Your task to perform on an android device: open app "Skype" (install if not already installed) Image 0: 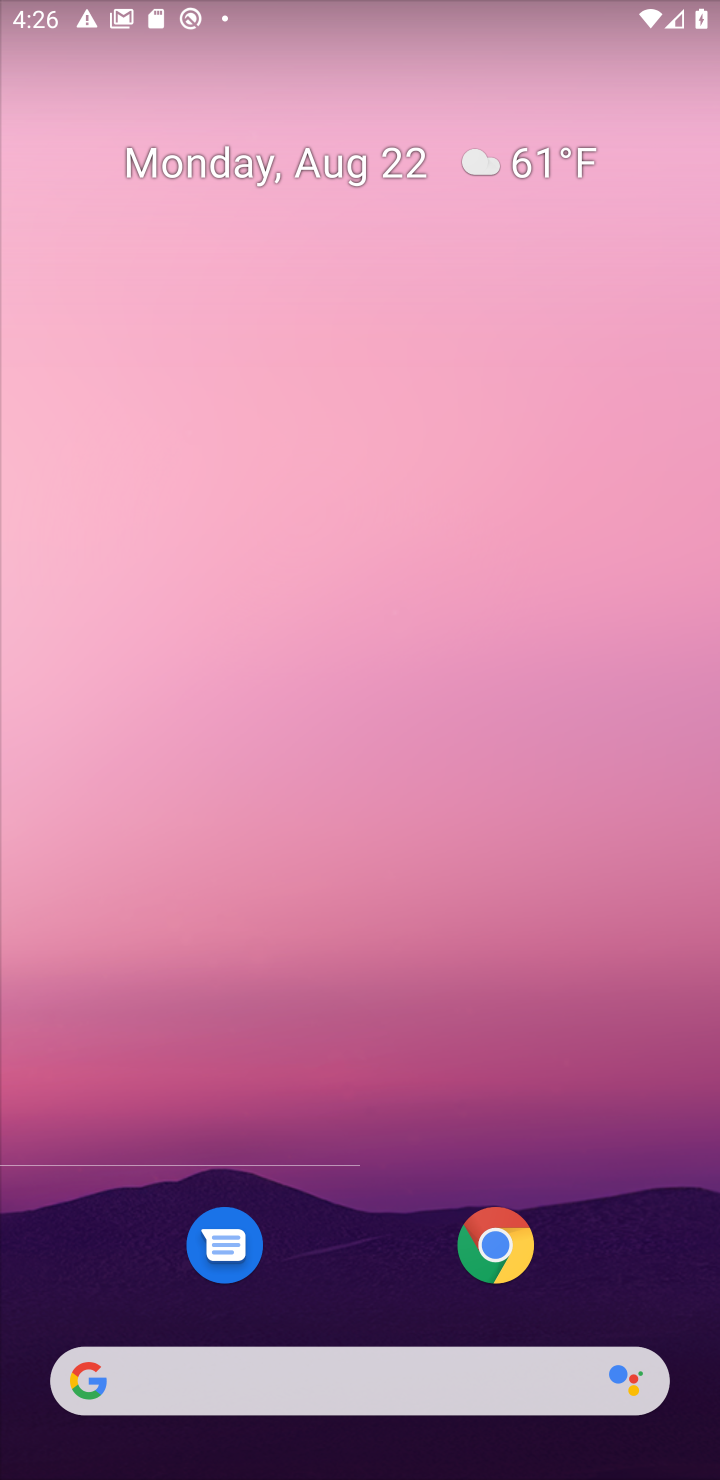
Step 0: press home button
Your task to perform on an android device: open app "Skype" (install if not already installed) Image 1: 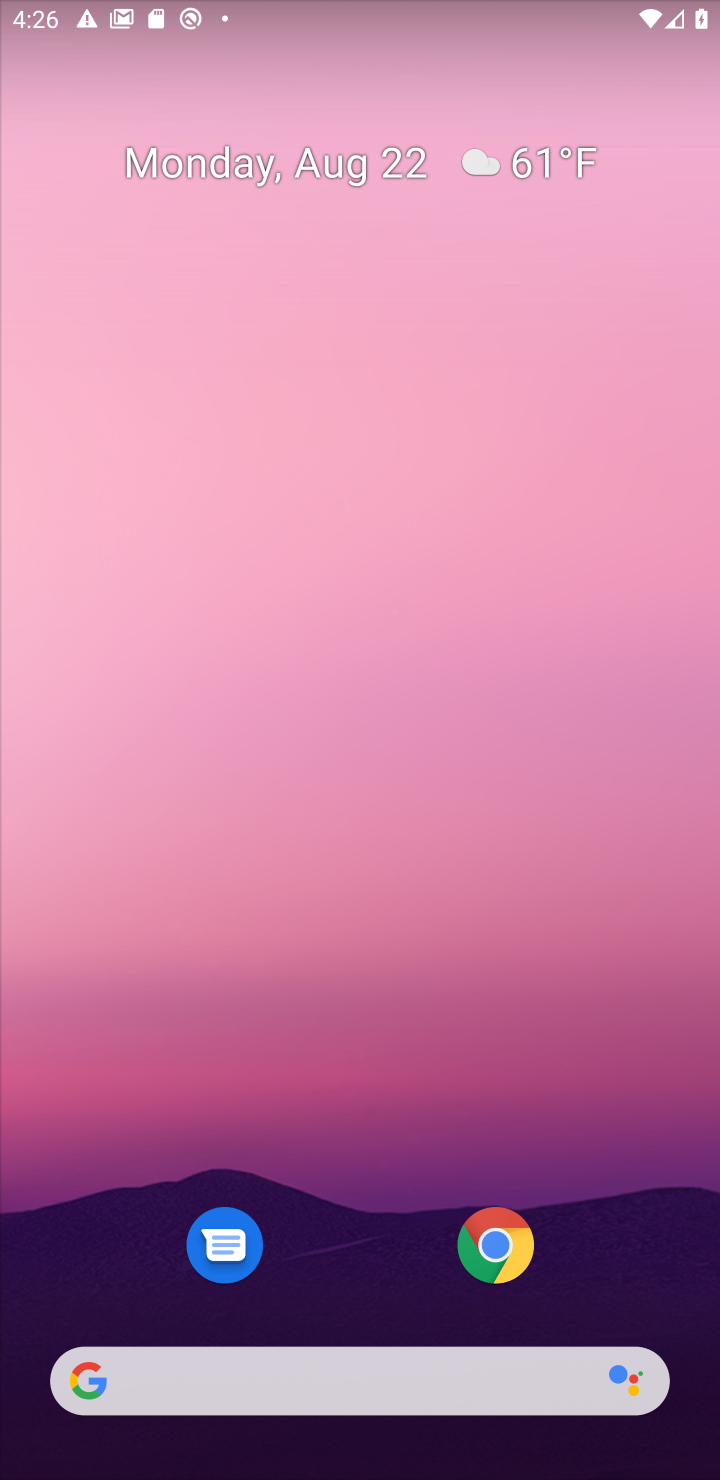
Step 1: drag from (603, 1074) to (665, 109)
Your task to perform on an android device: open app "Skype" (install if not already installed) Image 2: 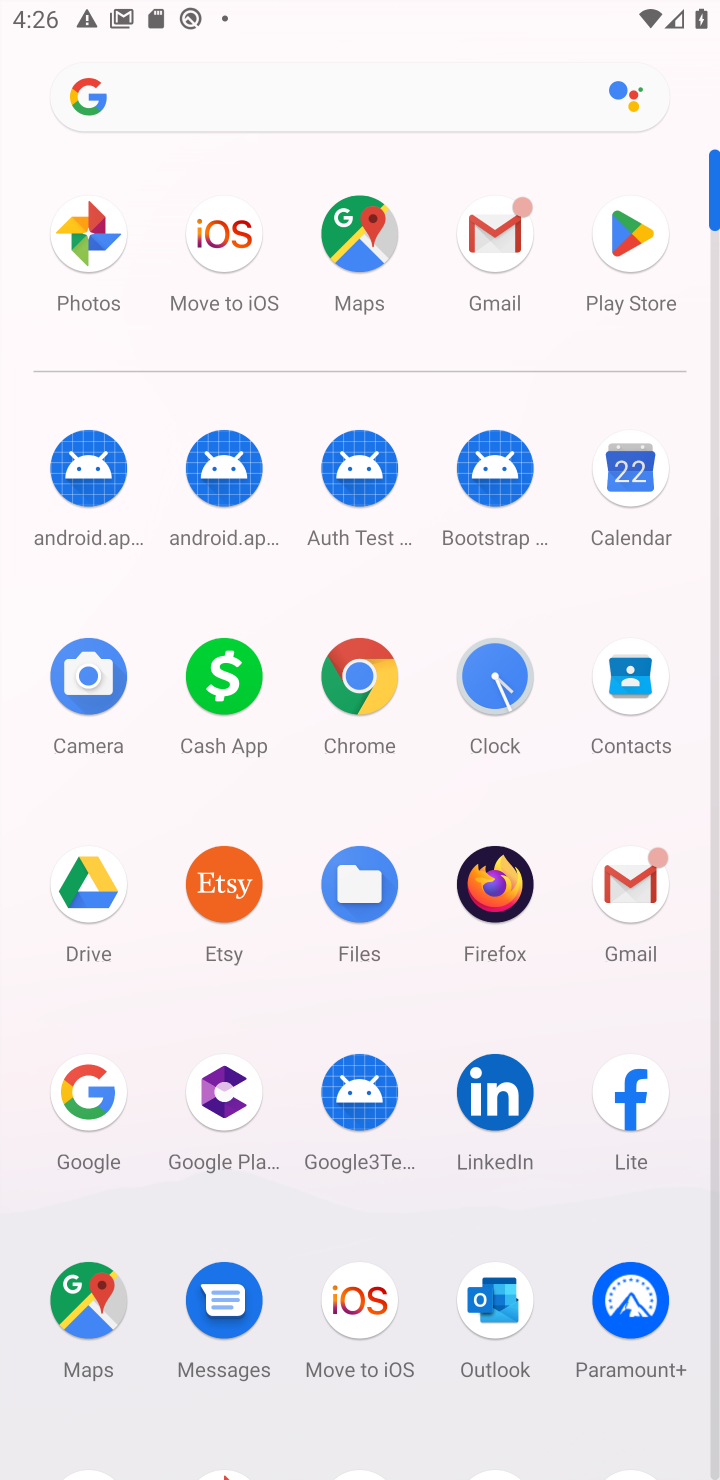
Step 2: click (621, 237)
Your task to perform on an android device: open app "Skype" (install if not already installed) Image 3: 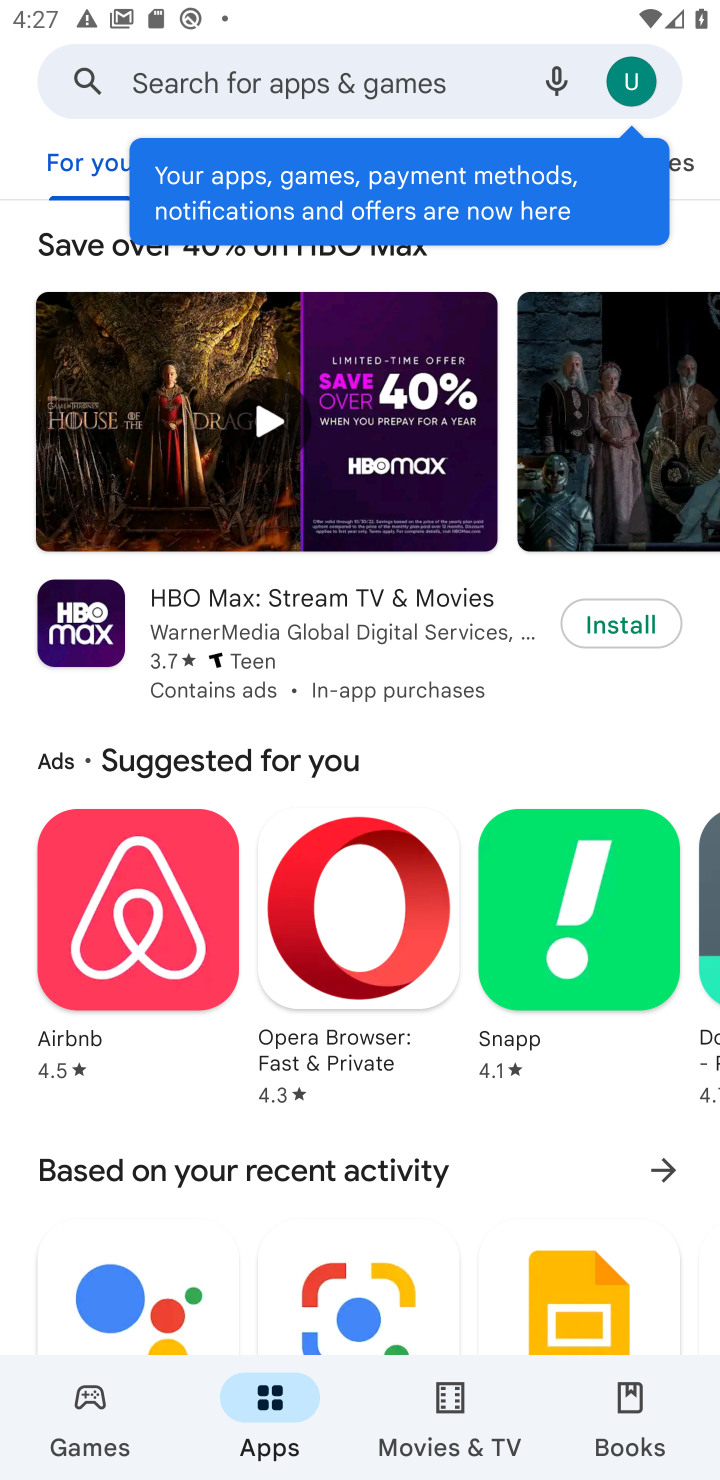
Step 3: click (247, 86)
Your task to perform on an android device: open app "Skype" (install if not already installed) Image 4: 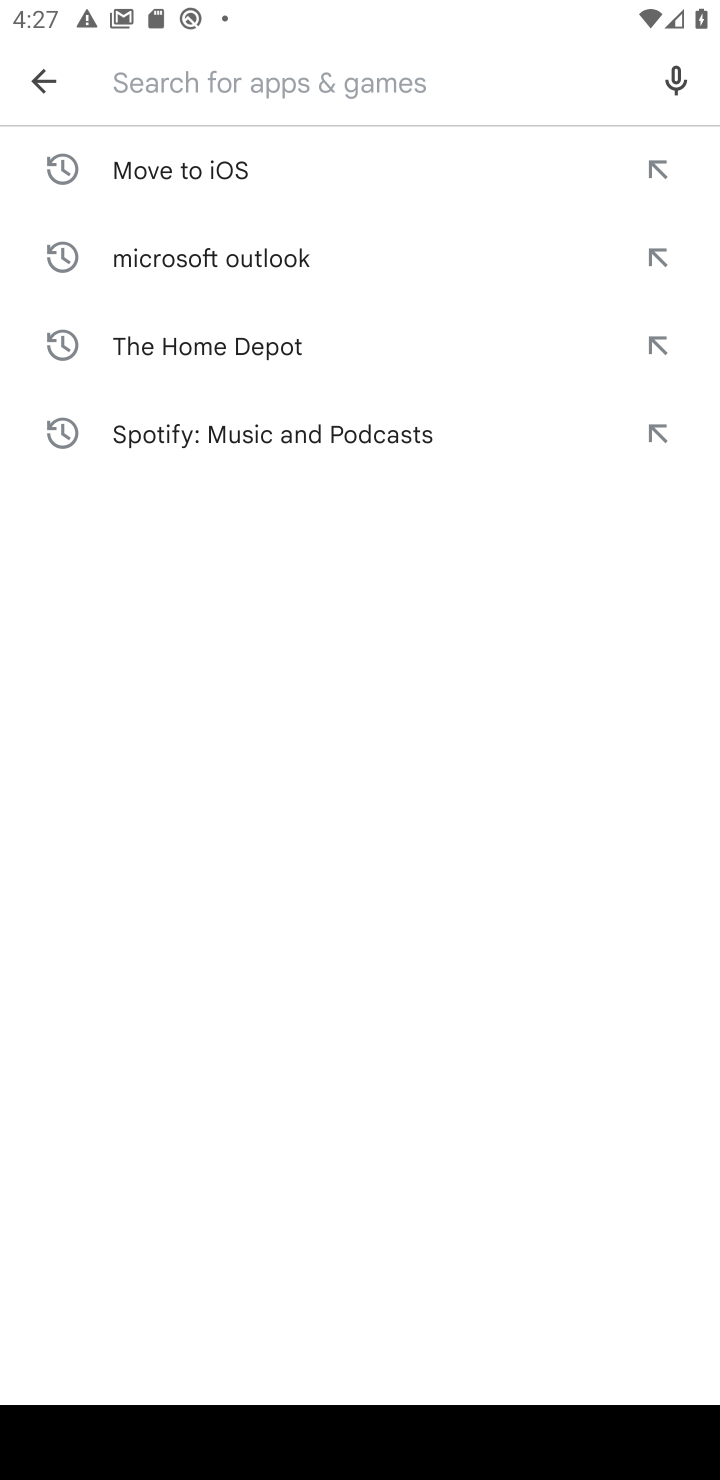
Step 4: press enter
Your task to perform on an android device: open app "Skype" (install if not already installed) Image 5: 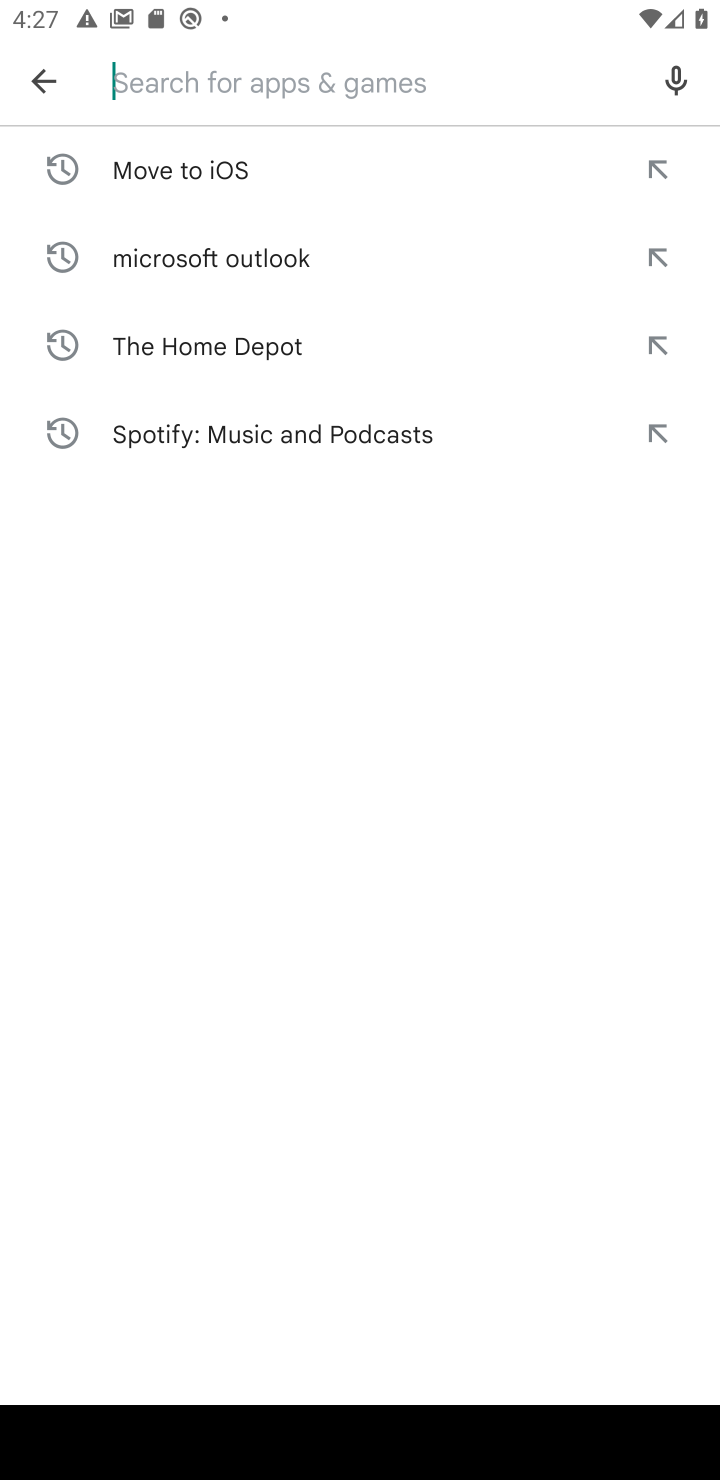
Step 5: type "skype"
Your task to perform on an android device: open app "Skype" (install if not already installed) Image 6: 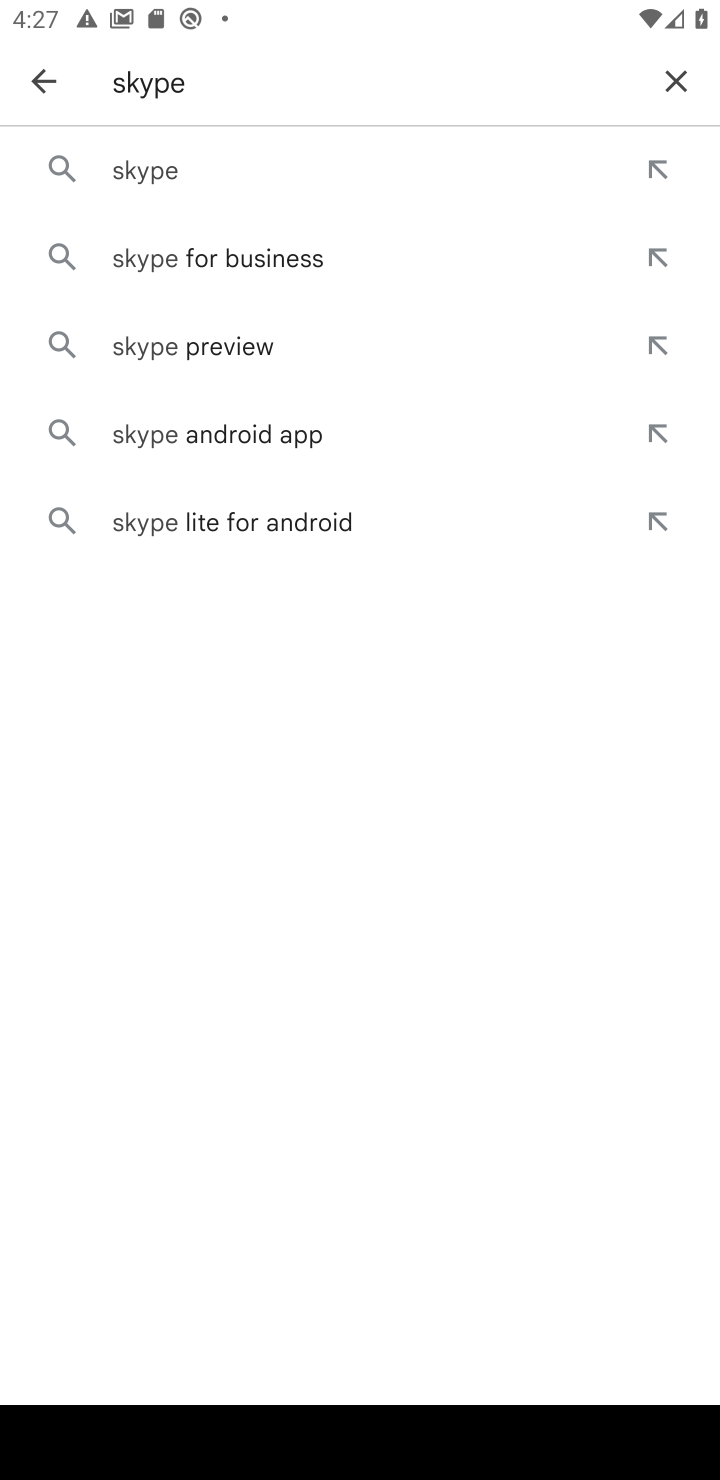
Step 6: click (242, 178)
Your task to perform on an android device: open app "Skype" (install if not already installed) Image 7: 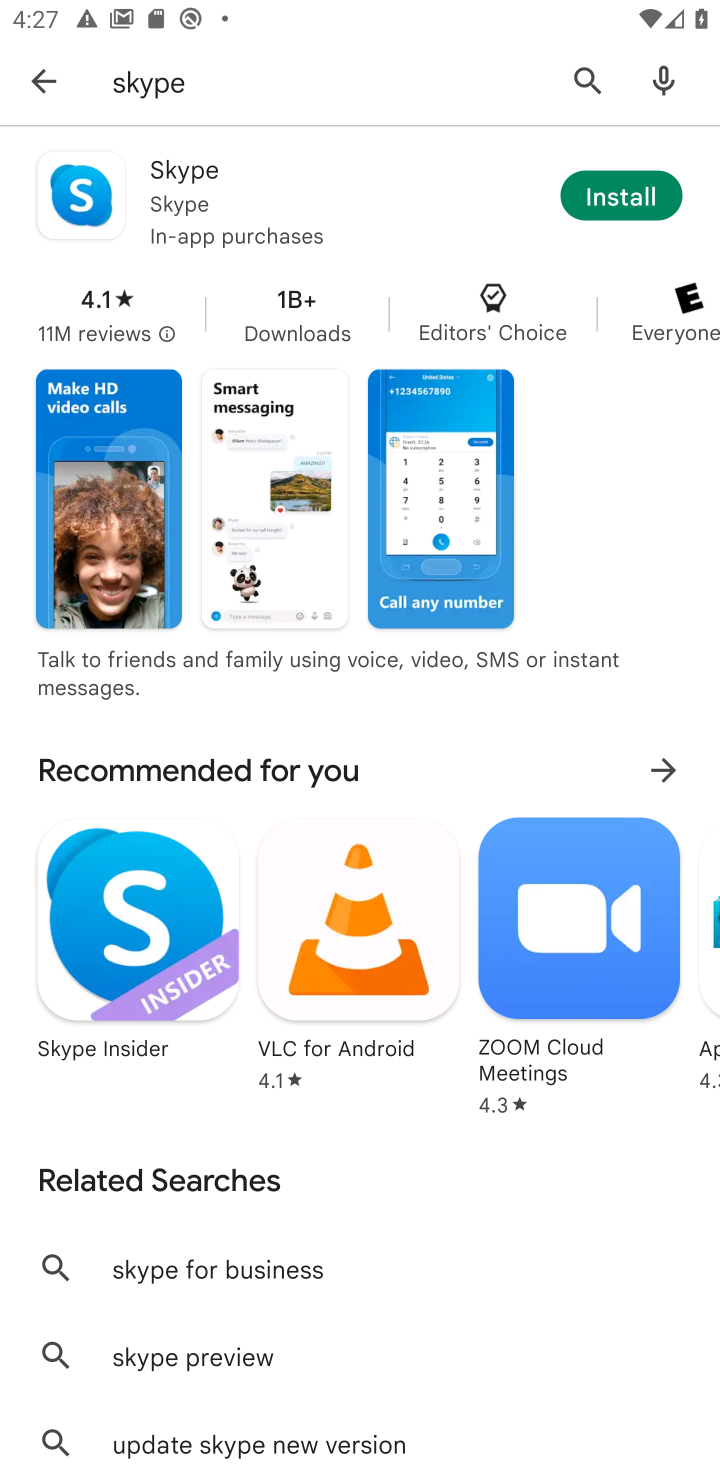
Step 7: click (649, 201)
Your task to perform on an android device: open app "Skype" (install if not already installed) Image 8: 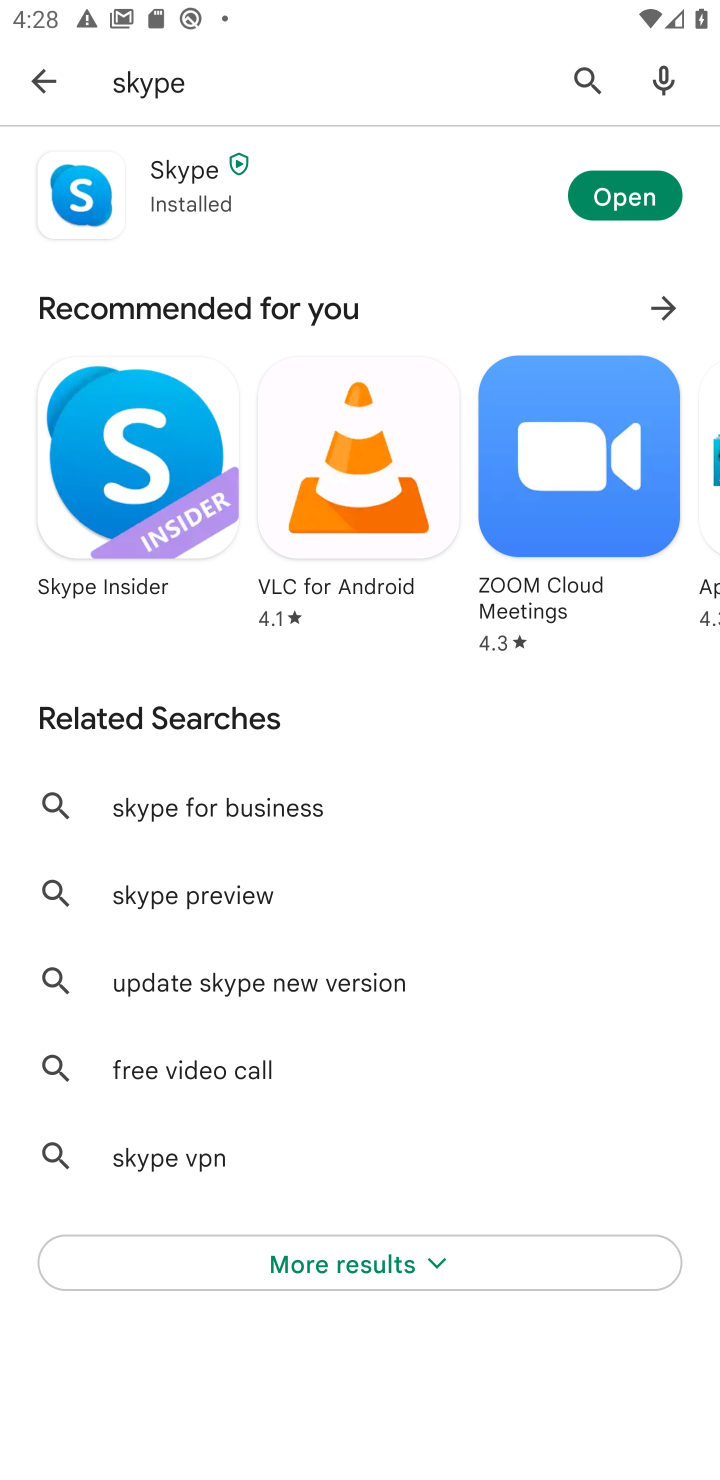
Step 8: click (633, 199)
Your task to perform on an android device: open app "Skype" (install if not already installed) Image 9: 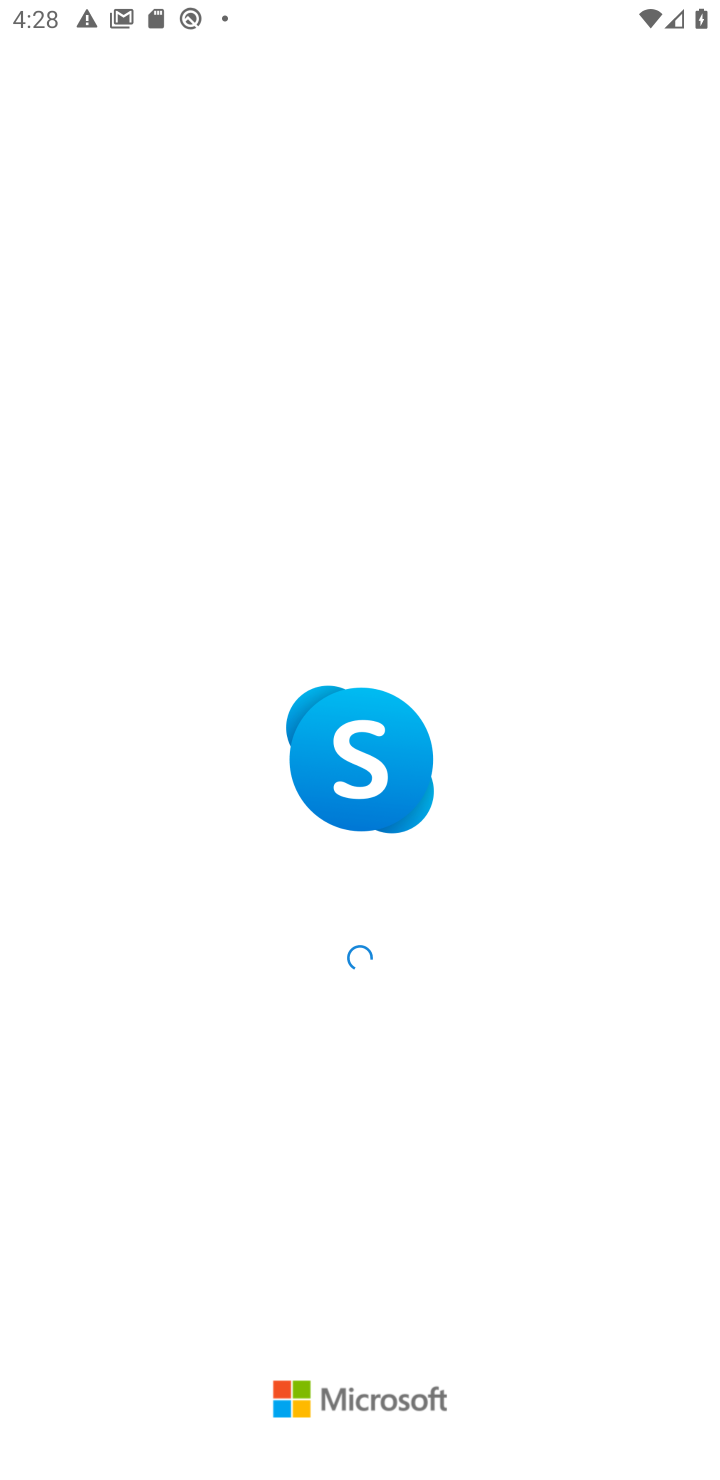
Step 9: task complete